Your task to perform on an android device: open sync settings in chrome Image 0: 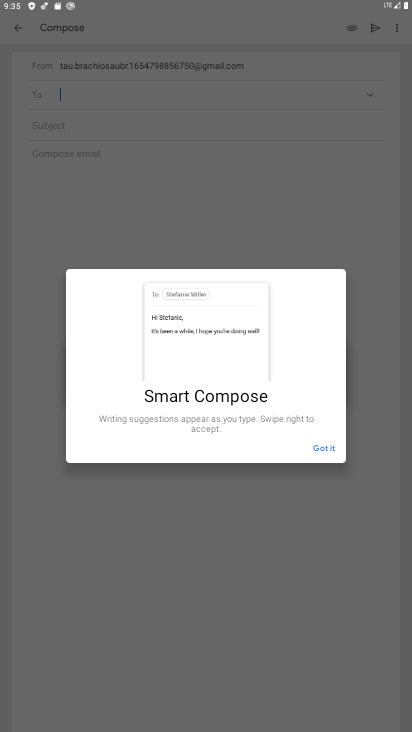
Step 0: press home button
Your task to perform on an android device: open sync settings in chrome Image 1: 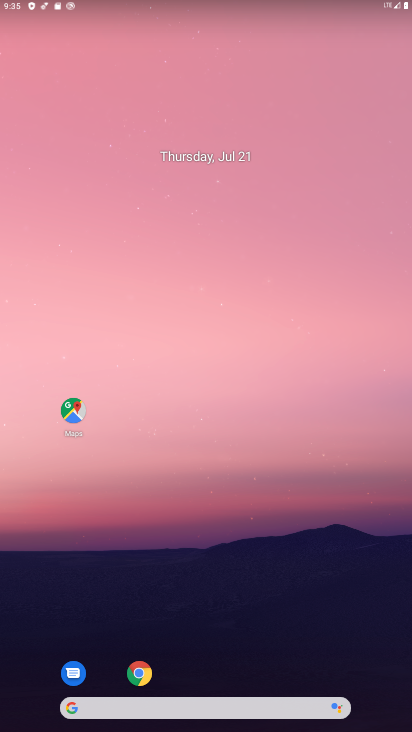
Step 1: drag from (187, 549) to (220, 175)
Your task to perform on an android device: open sync settings in chrome Image 2: 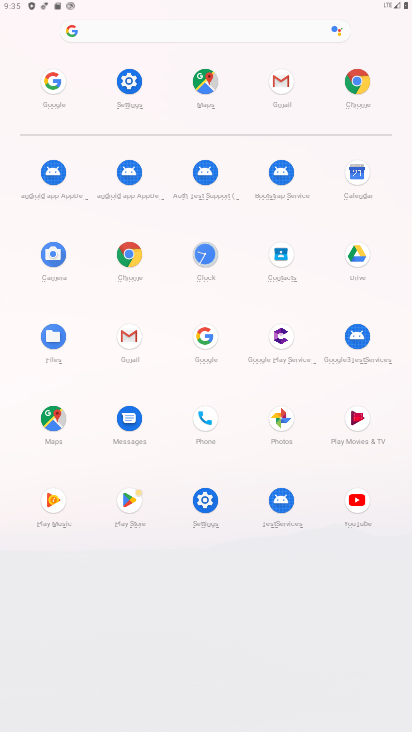
Step 2: click (120, 252)
Your task to perform on an android device: open sync settings in chrome Image 3: 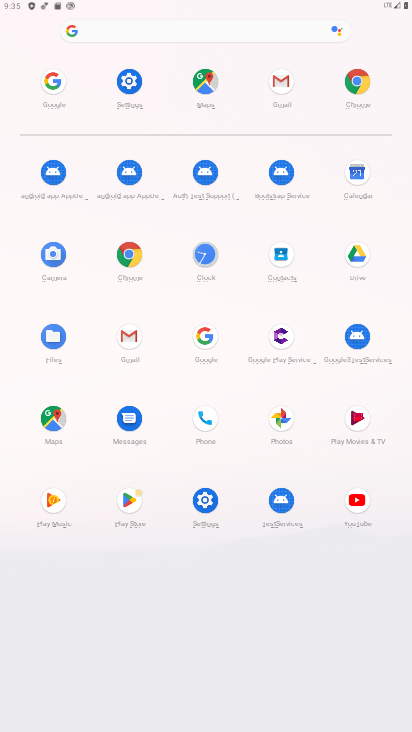
Step 3: click (120, 252)
Your task to perform on an android device: open sync settings in chrome Image 4: 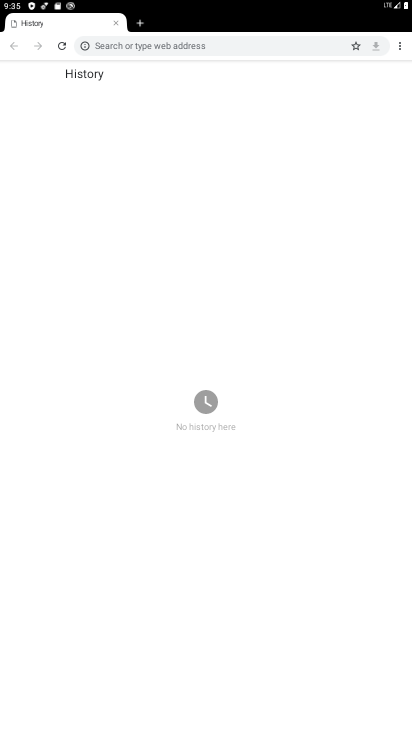
Step 4: drag from (398, 48) to (311, 239)
Your task to perform on an android device: open sync settings in chrome Image 5: 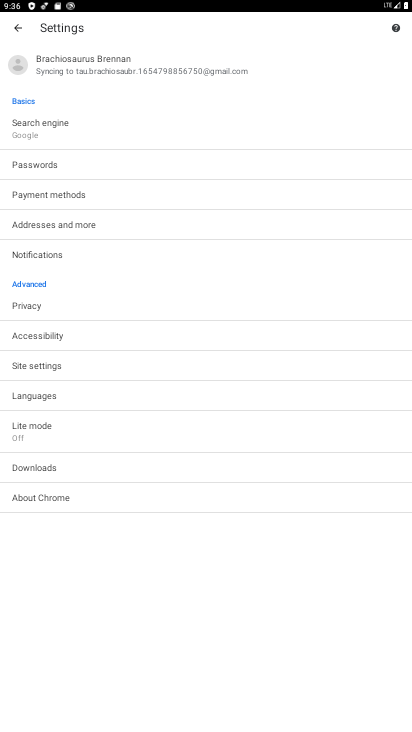
Step 5: click (40, 367)
Your task to perform on an android device: open sync settings in chrome Image 6: 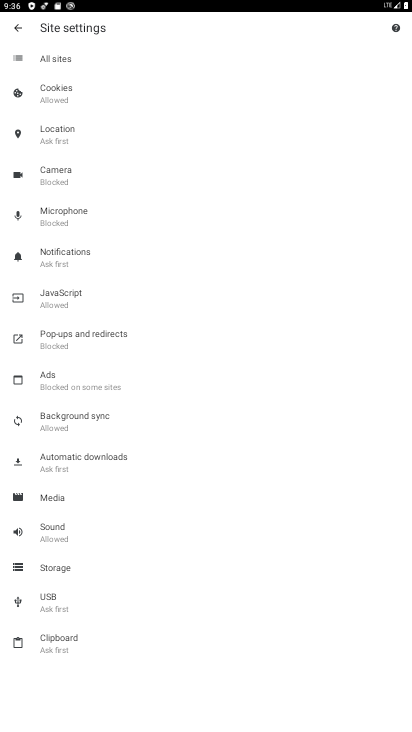
Step 6: click (103, 431)
Your task to perform on an android device: open sync settings in chrome Image 7: 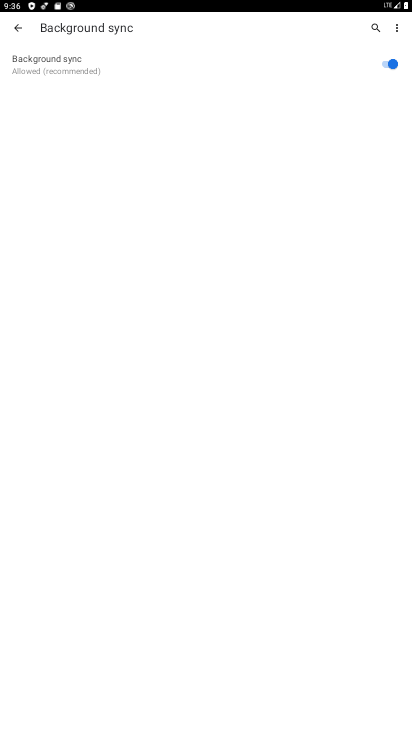
Step 7: task complete